Your task to perform on an android device: Open the Play Movies app and select the watchlist tab. Image 0: 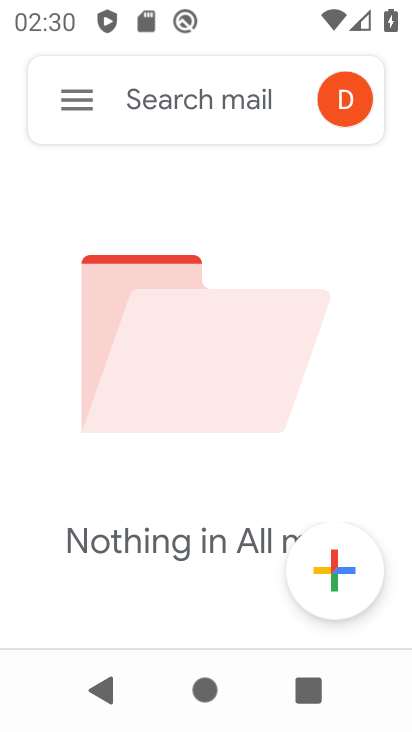
Step 0: press home button
Your task to perform on an android device: Open the Play Movies app and select the watchlist tab. Image 1: 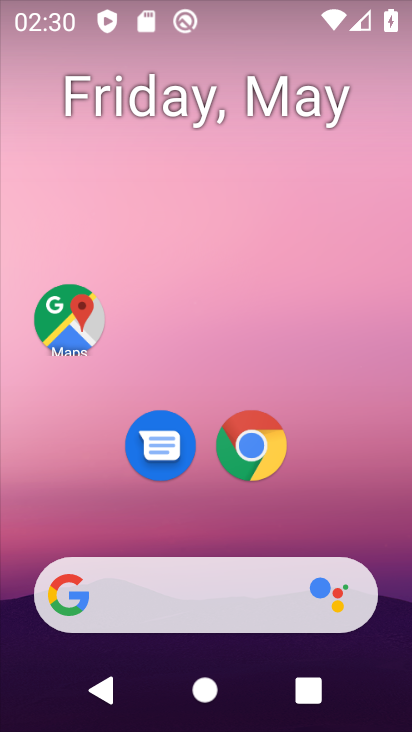
Step 1: drag from (120, 491) to (220, 110)
Your task to perform on an android device: Open the Play Movies app and select the watchlist tab. Image 2: 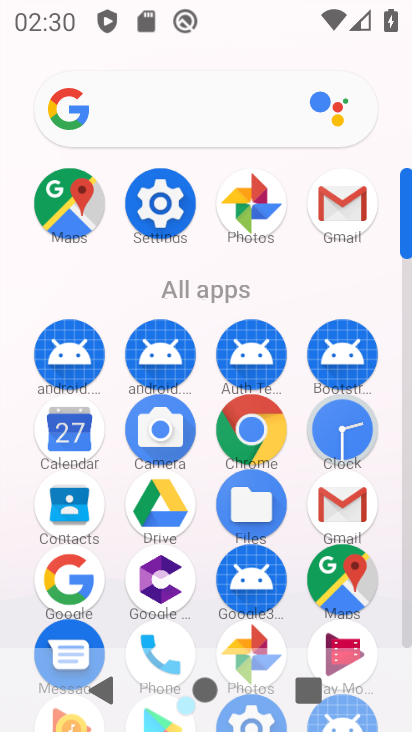
Step 2: drag from (235, 539) to (305, 323)
Your task to perform on an android device: Open the Play Movies app and select the watchlist tab. Image 3: 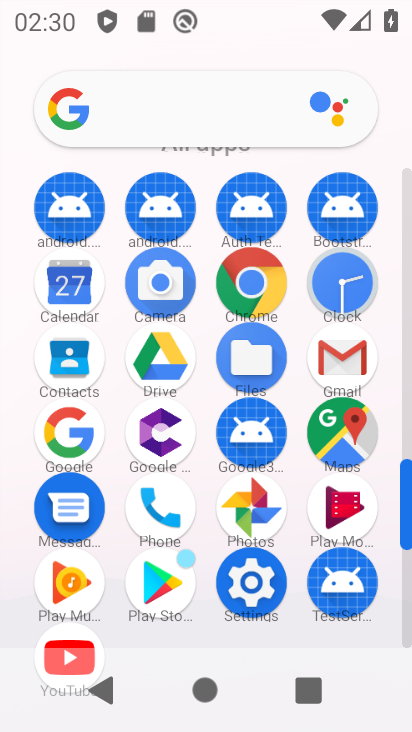
Step 3: click (353, 514)
Your task to perform on an android device: Open the Play Movies app and select the watchlist tab. Image 4: 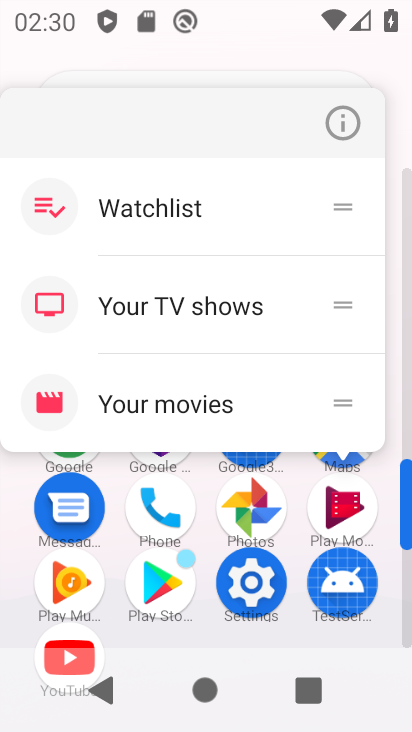
Step 4: click (353, 514)
Your task to perform on an android device: Open the Play Movies app and select the watchlist tab. Image 5: 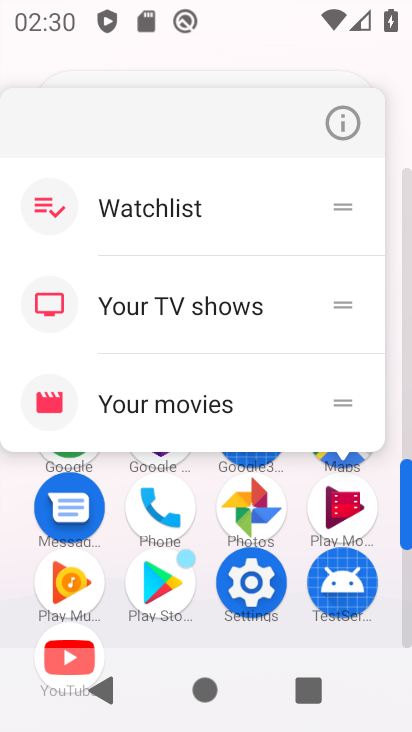
Step 5: click (353, 514)
Your task to perform on an android device: Open the Play Movies app and select the watchlist tab. Image 6: 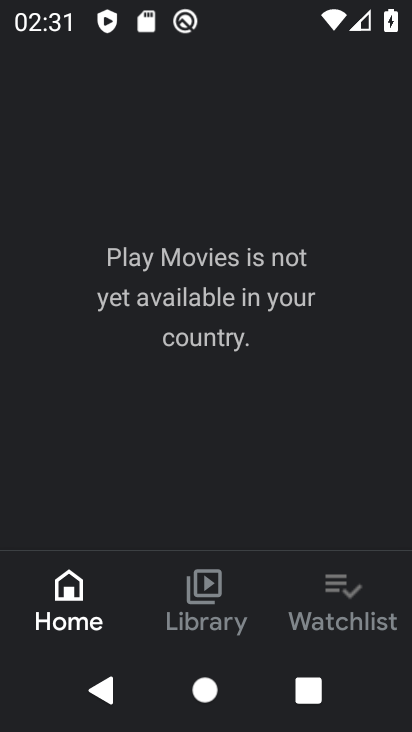
Step 6: click (351, 588)
Your task to perform on an android device: Open the Play Movies app and select the watchlist tab. Image 7: 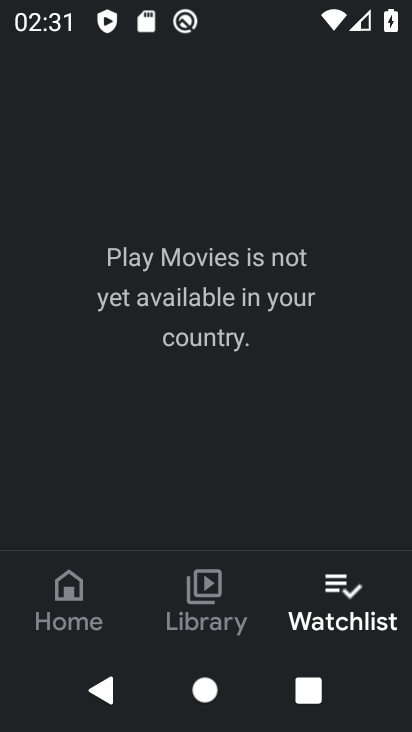
Step 7: task complete